Your task to perform on an android device: turn off wifi Image 0: 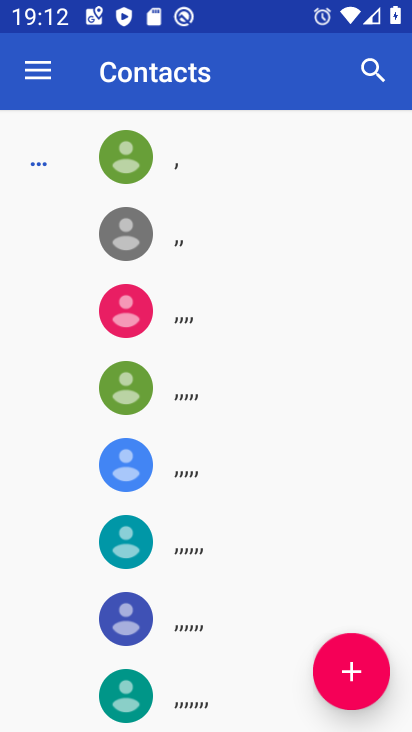
Step 0: press home button
Your task to perform on an android device: turn off wifi Image 1: 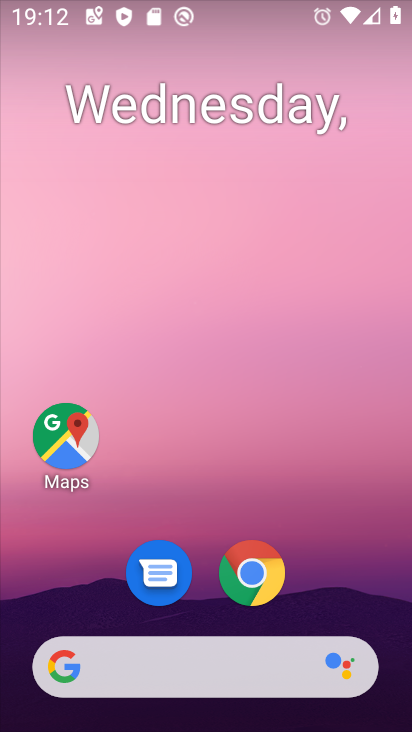
Step 1: drag from (343, 16) to (308, 566)
Your task to perform on an android device: turn off wifi Image 2: 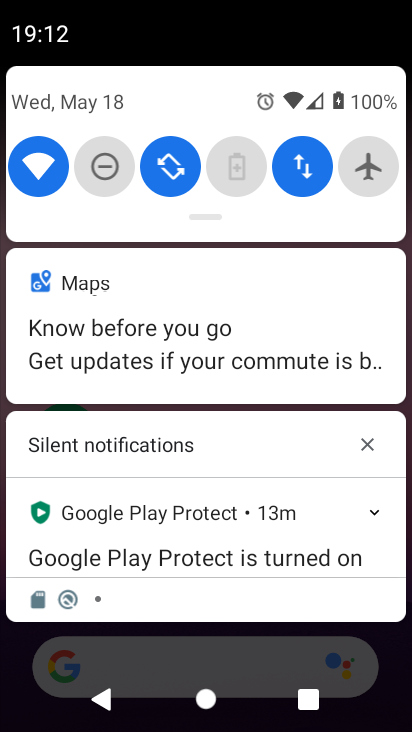
Step 2: click (54, 162)
Your task to perform on an android device: turn off wifi Image 3: 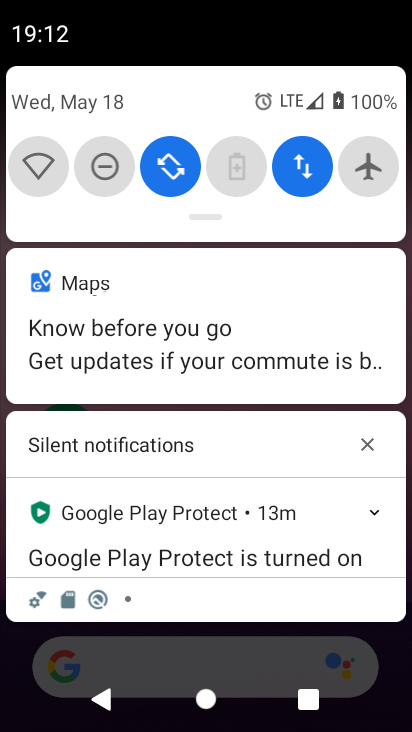
Step 3: task complete